Your task to perform on an android device: turn off notifications settings in the gmail app Image 0: 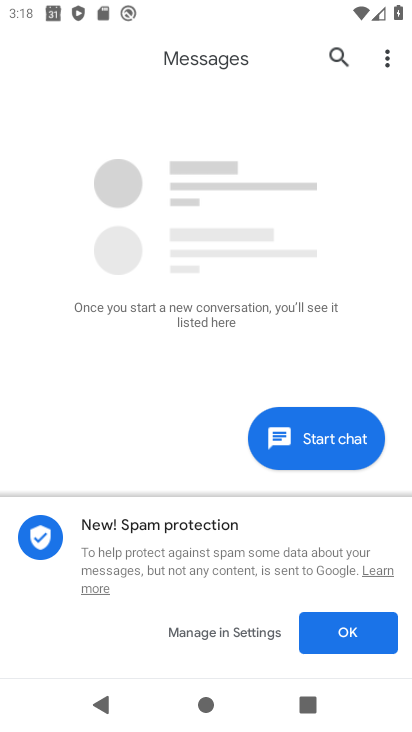
Step 0: press home button
Your task to perform on an android device: turn off notifications settings in the gmail app Image 1: 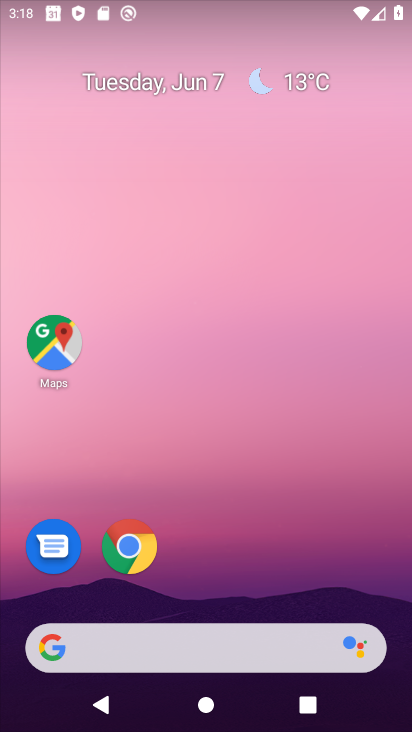
Step 1: drag from (173, 621) to (213, 16)
Your task to perform on an android device: turn off notifications settings in the gmail app Image 2: 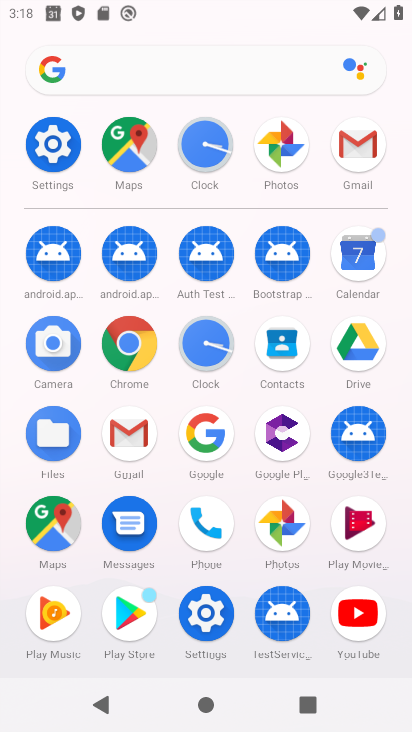
Step 2: click (351, 159)
Your task to perform on an android device: turn off notifications settings in the gmail app Image 3: 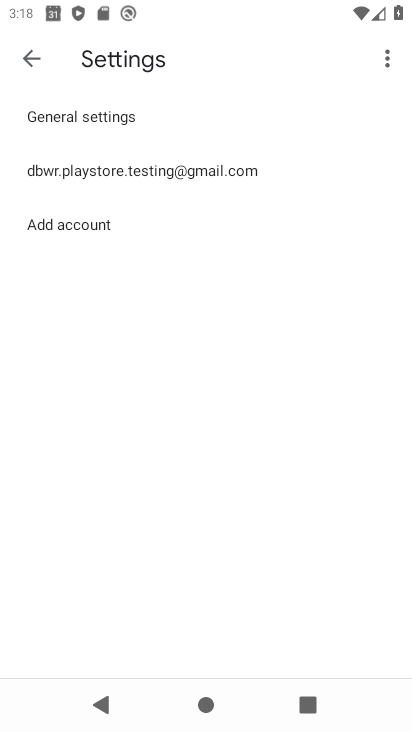
Step 3: click (216, 177)
Your task to perform on an android device: turn off notifications settings in the gmail app Image 4: 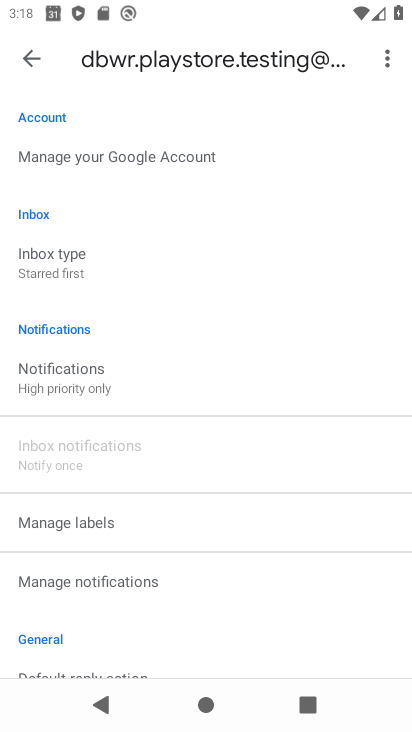
Step 4: click (101, 367)
Your task to perform on an android device: turn off notifications settings in the gmail app Image 5: 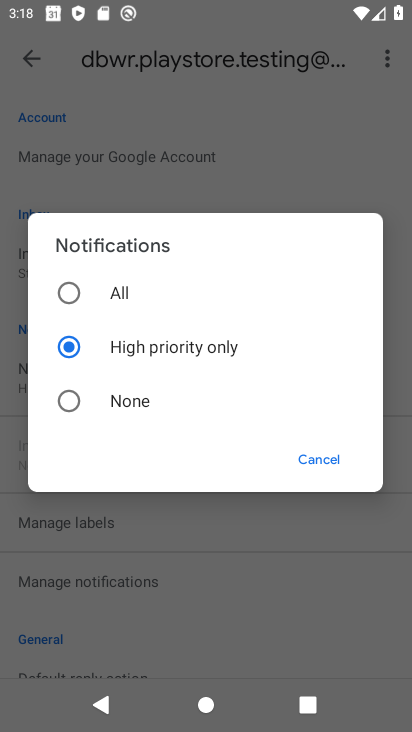
Step 5: click (102, 405)
Your task to perform on an android device: turn off notifications settings in the gmail app Image 6: 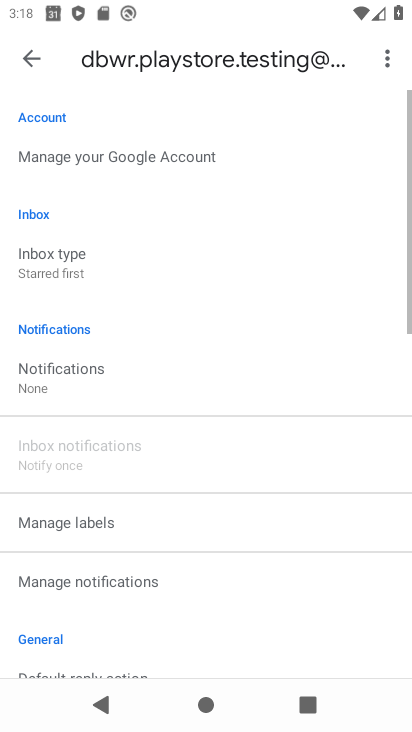
Step 6: task complete